Your task to perform on an android device: turn on the 12-hour format for clock Image 0: 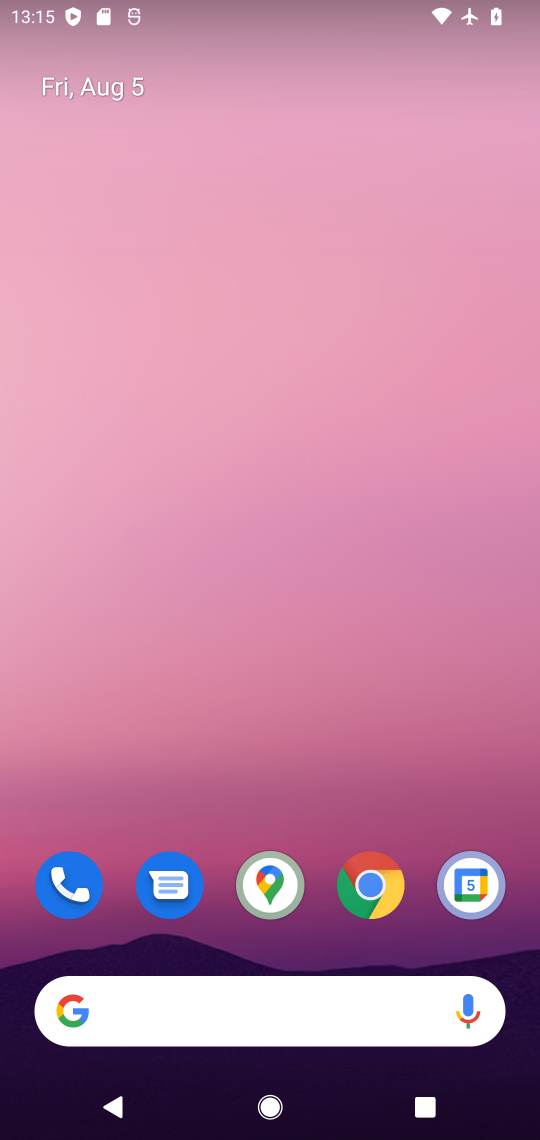
Step 0: drag from (207, 859) to (268, 294)
Your task to perform on an android device: turn on the 12-hour format for clock Image 1: 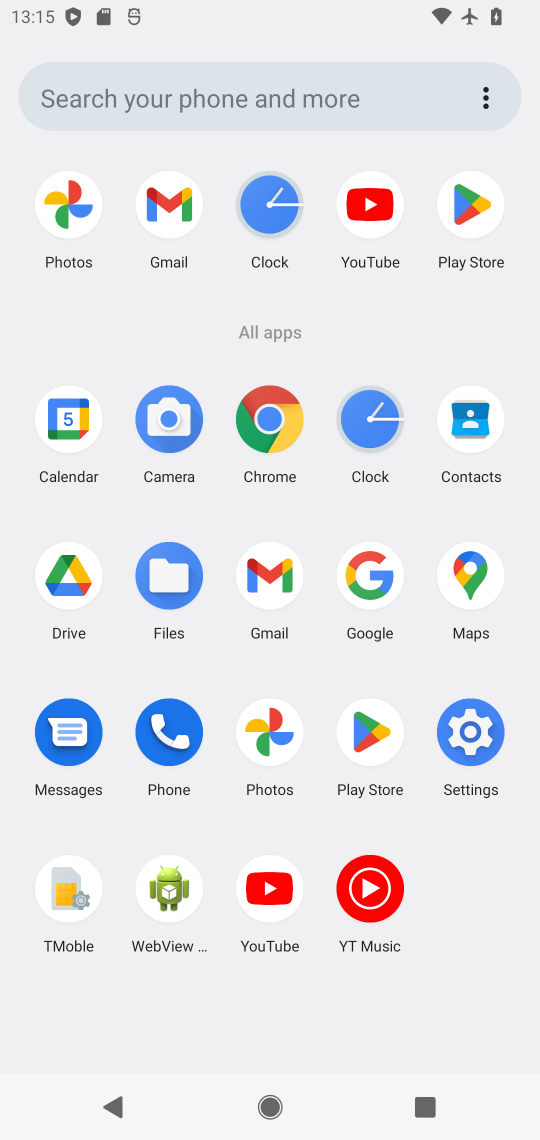
Step 1: click (364, 422)
Your task to perform on an android device: turn on the 12-hour format for clock Image 2: 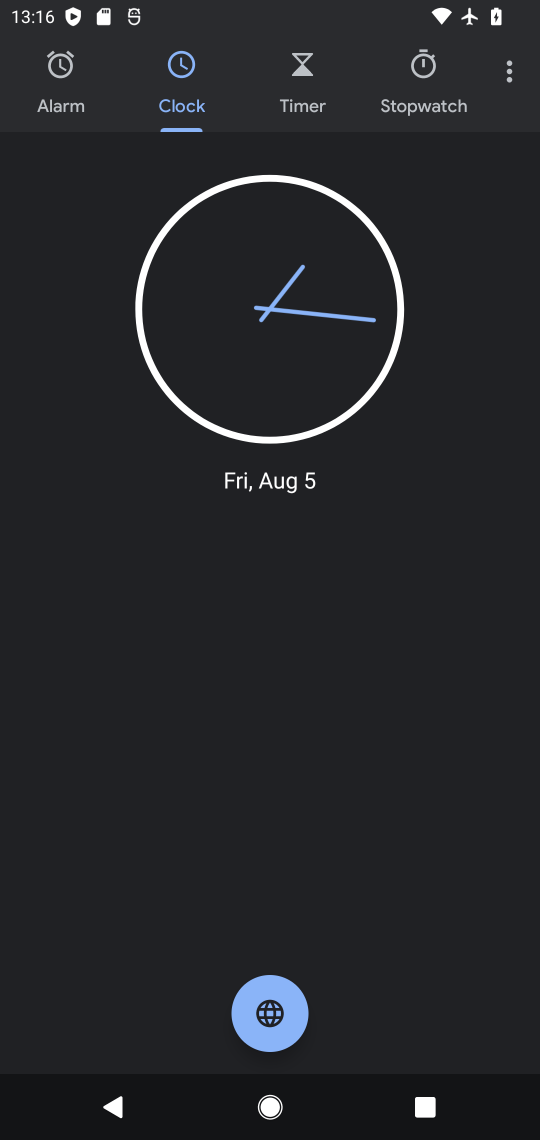
Step 2: click (508, 74)
Your task to perform on an android device: turn on the 12-hour format for clock Image 3: 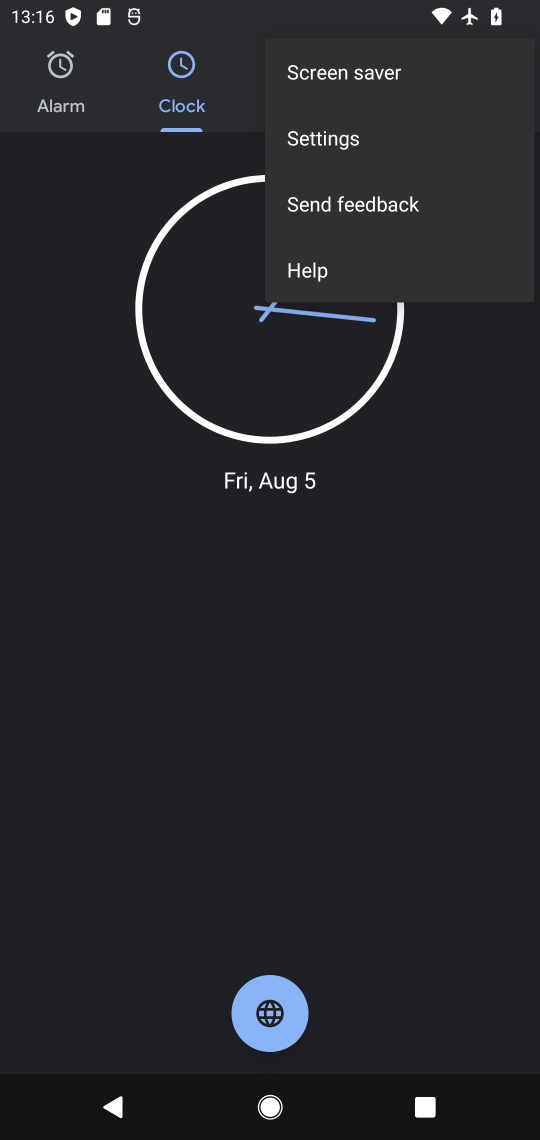
Step 3: click (371, 133)
Your task to perform on an android device: turn on the 12-hour format for clock Image 4: 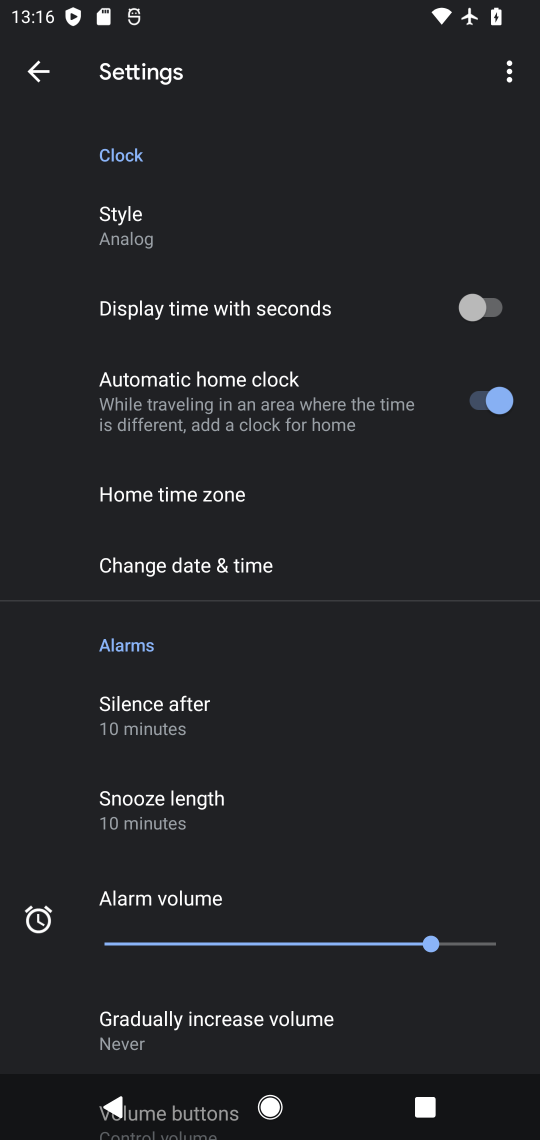
Step 4: drag from (370, 844) to (303, 336)
Your task to perform on an android device: turn on the 12-hour format for clock Image 5: 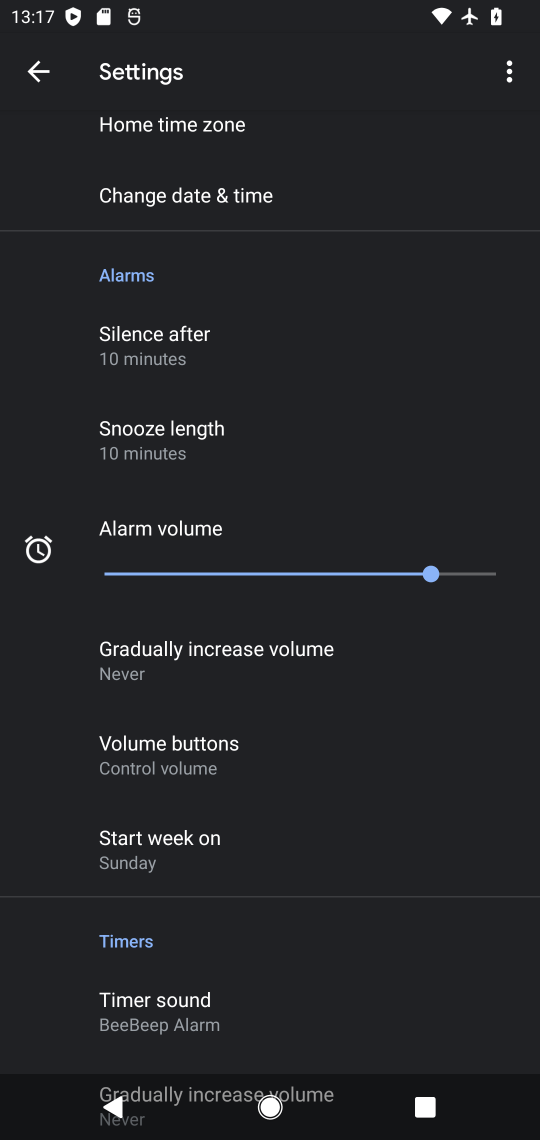
Step 5: click (241, 198)
Your task to perform on an android device: turn on the 12-hour format for clock Image 6: 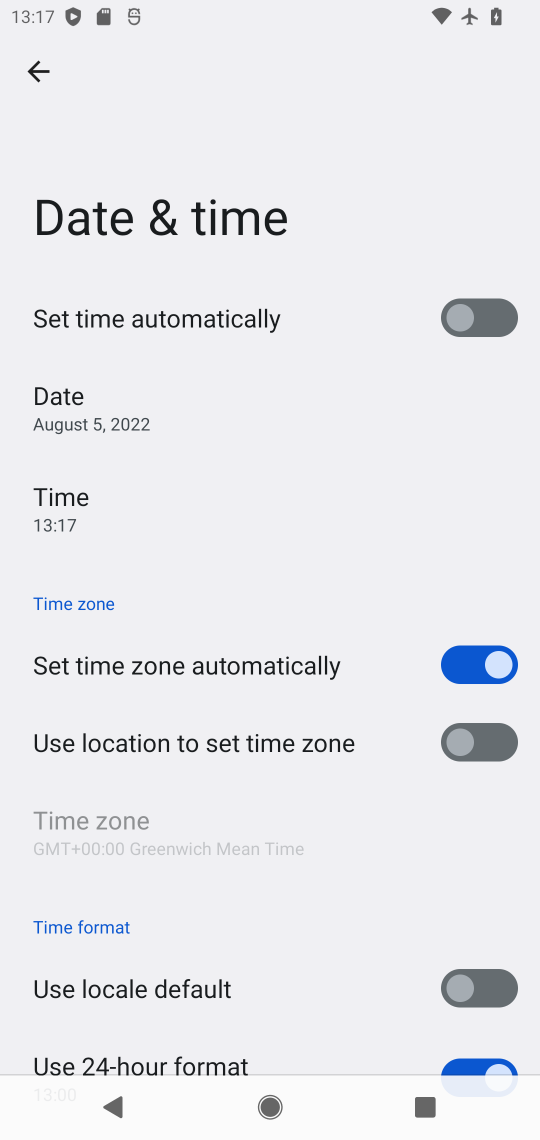
Step 6: task complete